Your task to perform on an android device: turn off airplane mode Image 0: 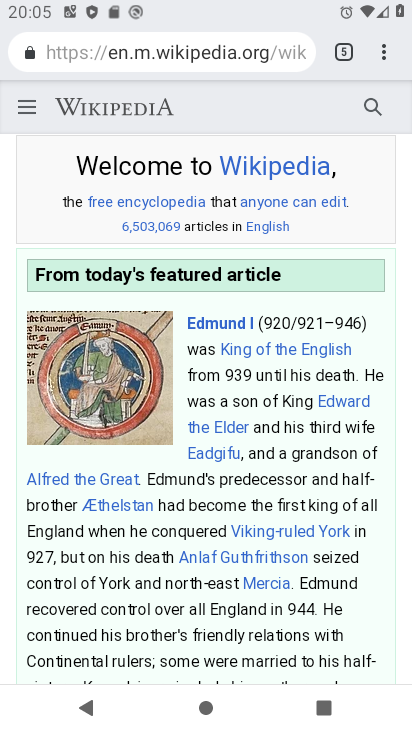
Step 0: press home button
Your task to perform on an android device: turn off airplane mode Image 1: 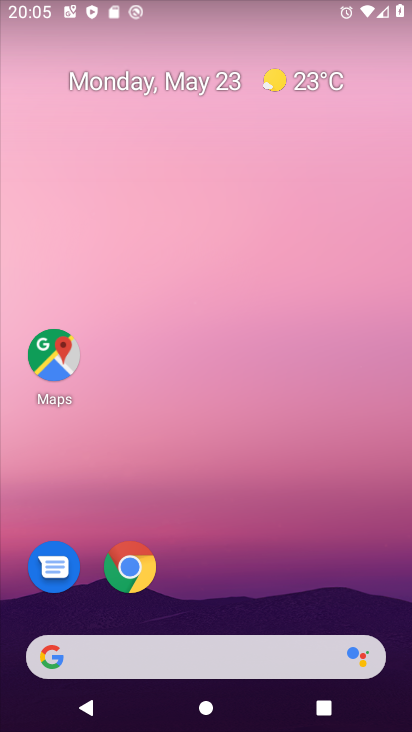
Step 1: drag from (215, 595) to (258, 282)
Your task to perform on an android device: turn off airplane mode Image 2: 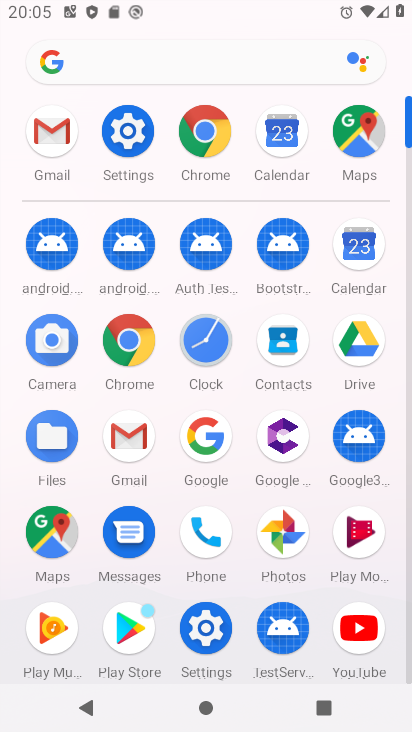
Step 2: click (133, 115)
Your task to perform on an android device: turn off airplane mode Image 3: 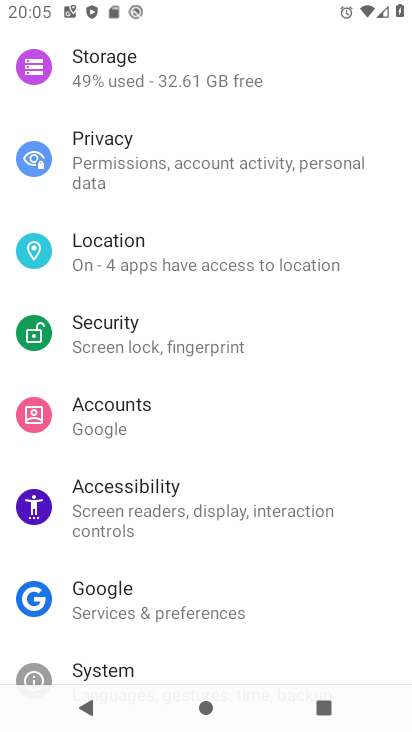
Step 3: drag from (200, 116) to (227, 517)
Your task to perform on an android device: turn off airplane mode Image 4: 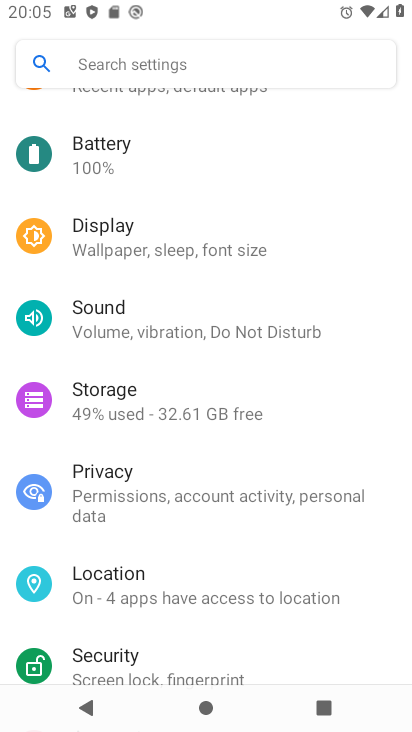
Step 4: drag from (153, 144) to (192, 652)
Your task to perform on an android device: turn off airplane mode Image 5: 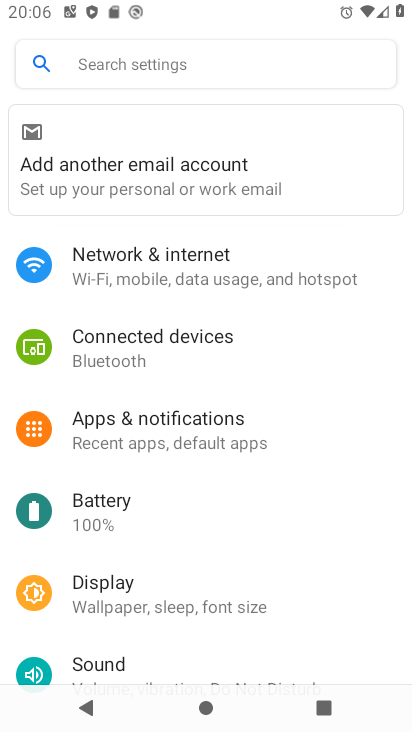
Step 5: click (184, 241)
Your task to perform on an android device: turn off airplane mode Image 6: 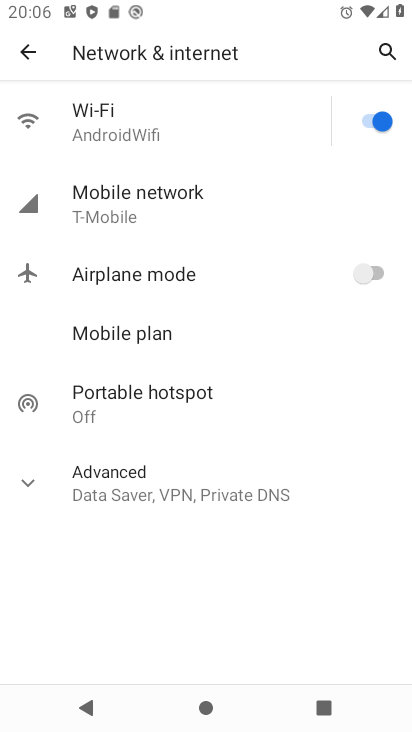
Step 6: task complete